Your task to perform on an android device: Play the last video I watched on Youtube Image 0: 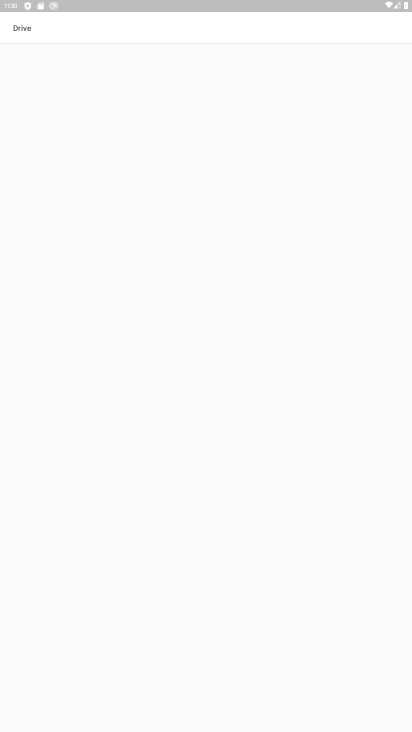
Step 0: press home button
Your task to perform on an android device: Play the last video I watched on Youtube Image 1: 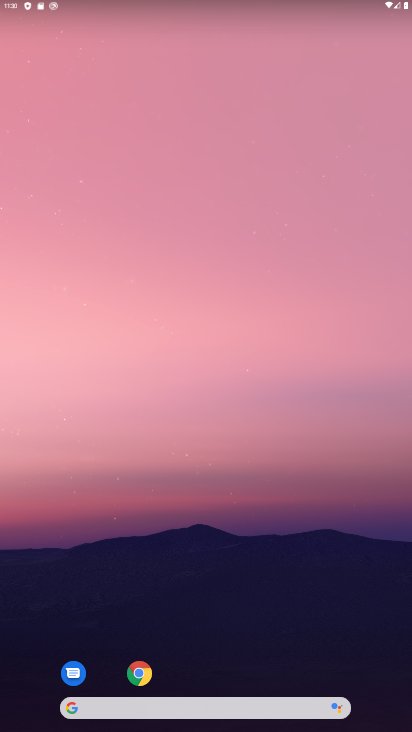
Step 1: drag from (353, 617) to (342, 87)
Your task to perform on an android device: Play the last video I watched on Youtube Image 2: 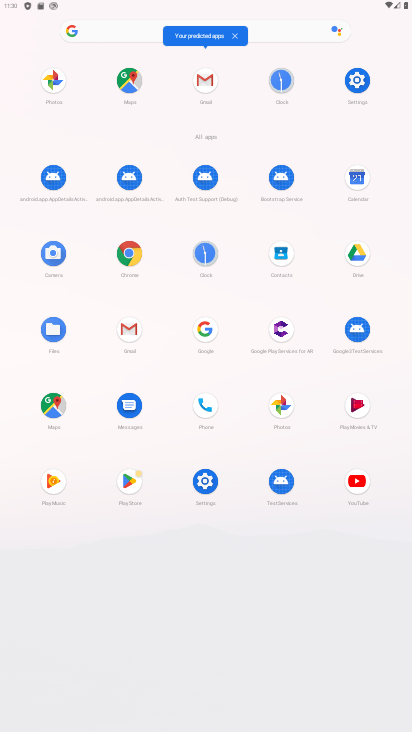
Step 2: click (360, 477)
Your task to perform on an android device: Play the last video I watched on Youtube Image 3: 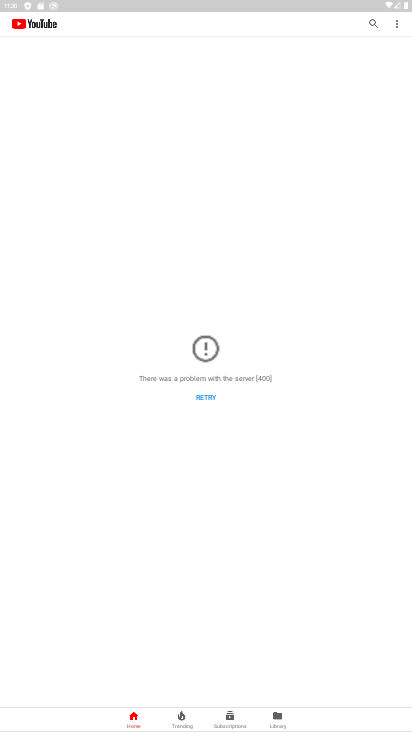
Step 3: click (280, 720)
Your task to perform on an android device: Play the last video I watched on Youtube Image 4: 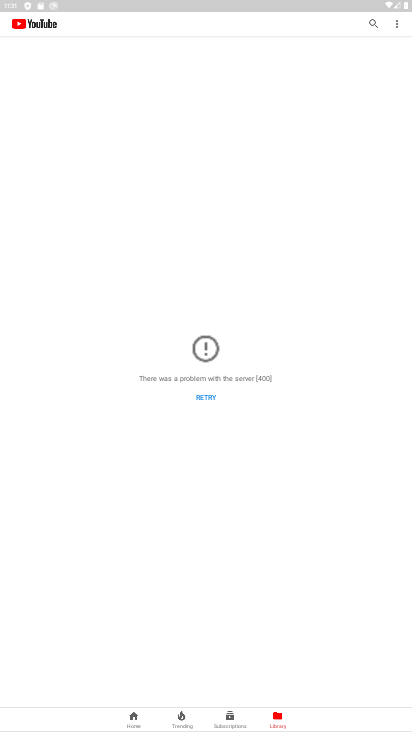
Step 4: task complete